Your task to perform on an android device: open app "Microsoft Excel" (install if not already installed) Image 0: 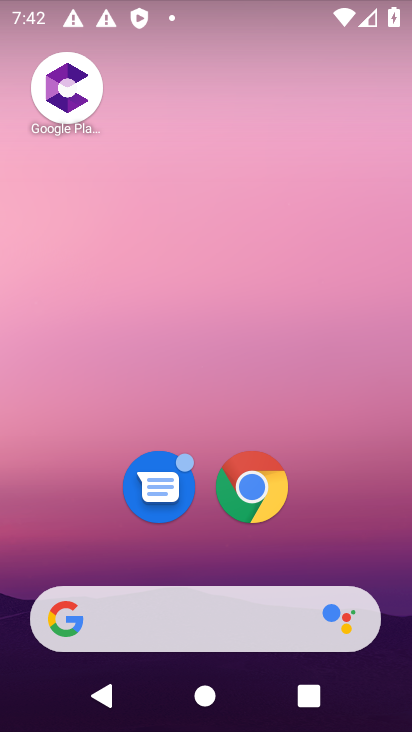
Step 0: drag from (112, 630) to (235, 22)
Your task to perform on an android device: open app "Microsoft Excel" (install if not already installed) Image 1: 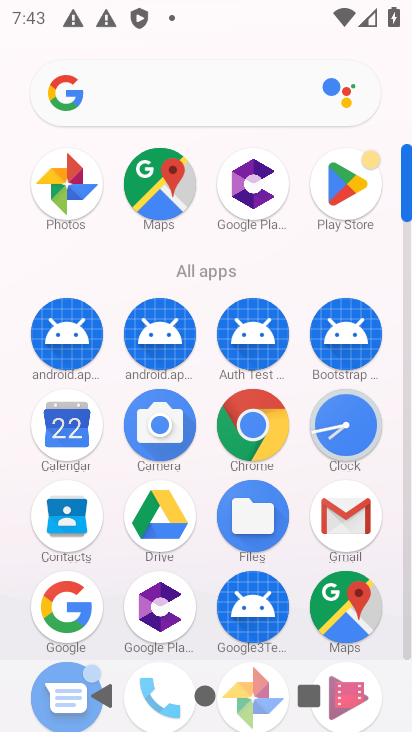
Step 1: click (333, 180)
Your task to perform on an android device: open app "Microsoft Excel" (install if not already installed) Image 2: 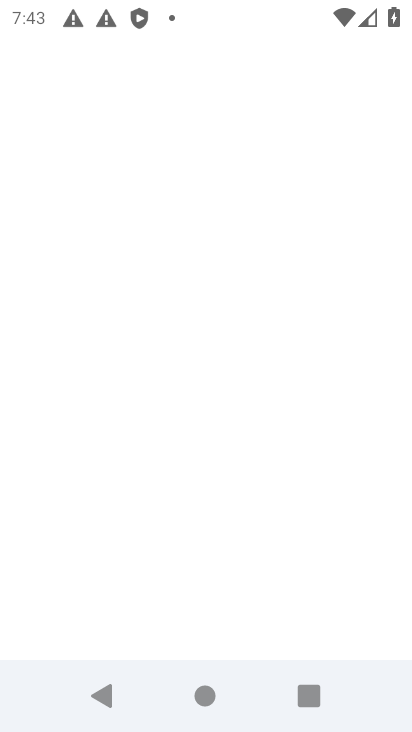
Step 2: task complete